Your task to perform on an android device: Go to notification settings Image 0: 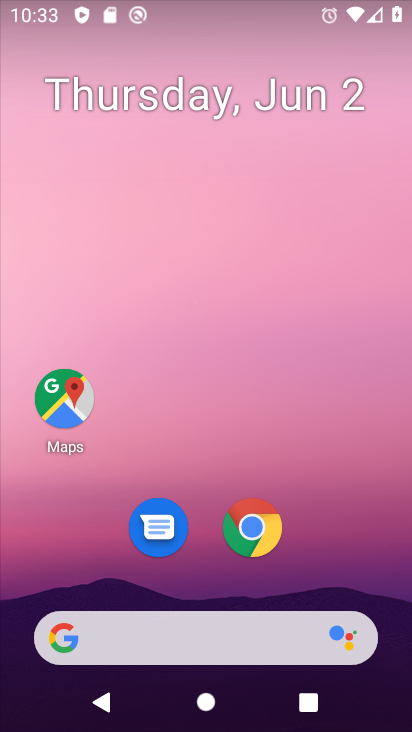
Step 0: drag from (195, 653) to (199, 244)
Your task to perform on an android device: Go to notification settings Image 1: 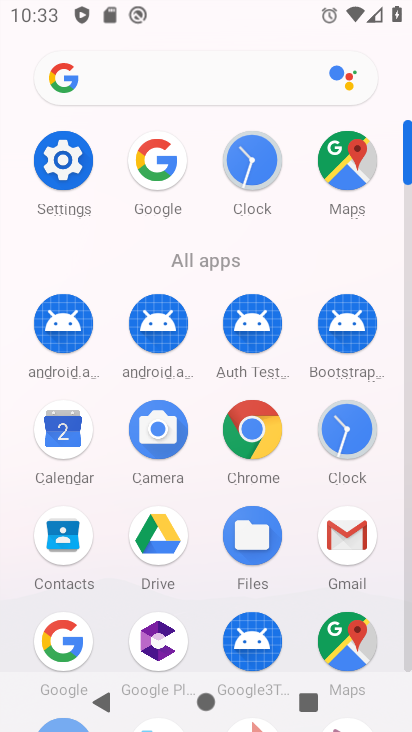
Step 1: click (79, 165)
Your task to perform on an android device: Go to notification settings Image 2: 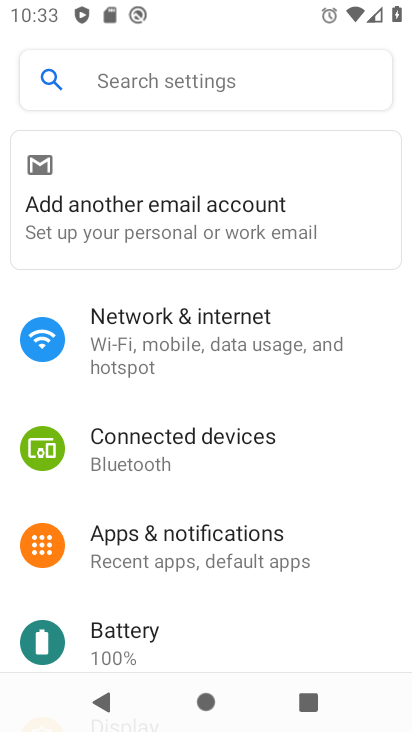
Step 2: click (189, 543)
Your task to perform on an android device: Go to notification settings Image 3: 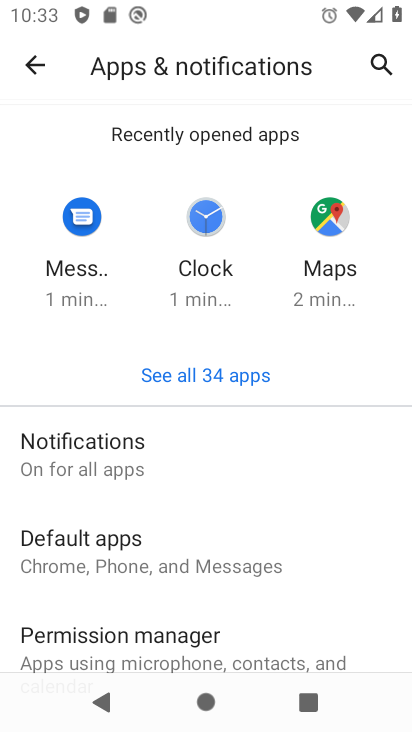
Step 3: task complete